Your task to perform on an android device: toggle javascript in the chrome app Image 0: 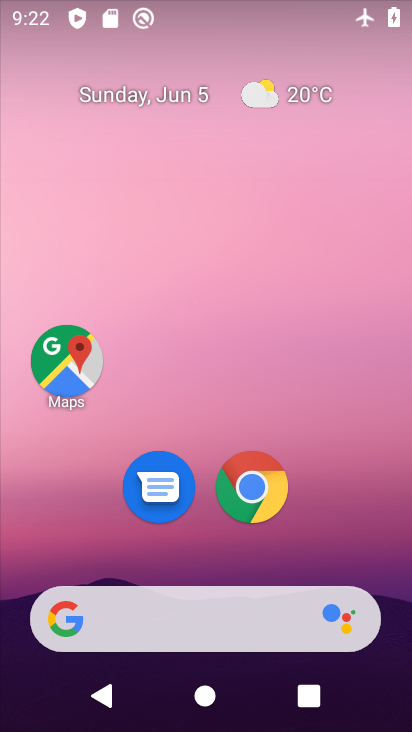
Step 0: drag from (159, 582) to (143, 152)
Your task to perform on an android device: toggle javascript in the chrome app Image 1: 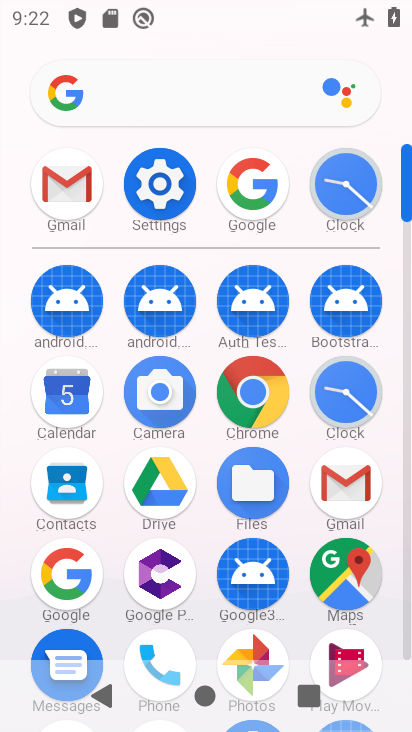
Step 1: click (256, 384)
Your task to perform on an android device: toggle javascript in the chrome app Image 2: 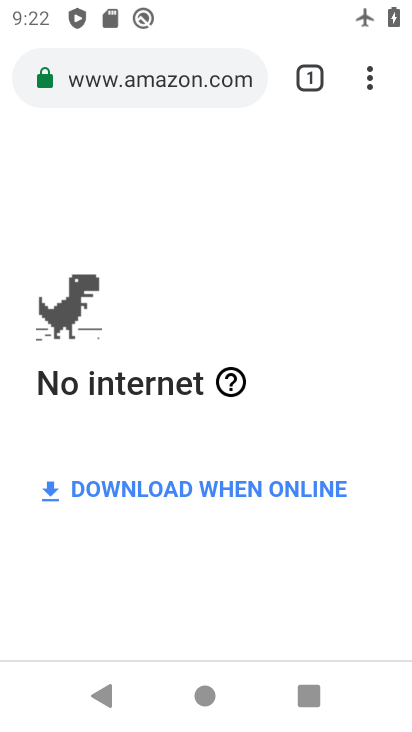
Step 2: click (374, 84)
Your task to perform on an android device: toggle javascript in the chrome app Image 3: 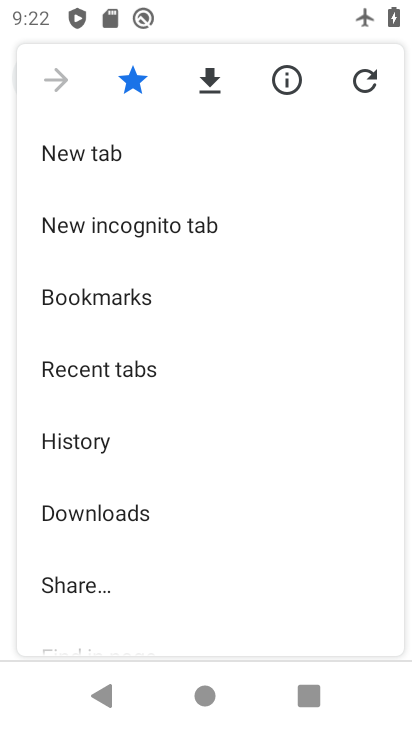
Step 3: drag from (203, 445) to (222, 77)
Your task to perform on an android device: toggle javascript in the chrome app Image 4: 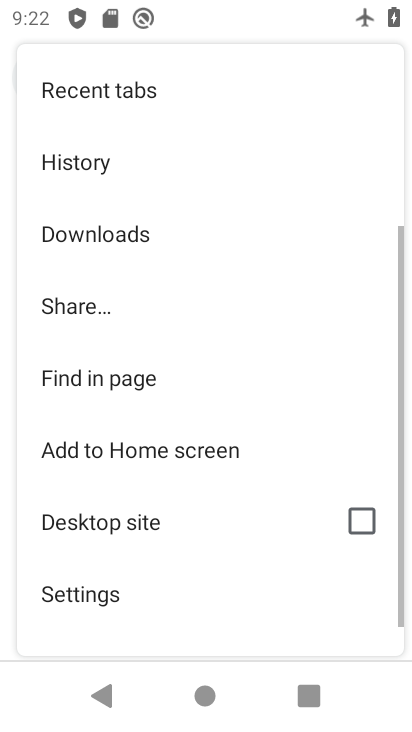
Step 4: click (233, 12)
Your task to perform on an android device: toggle javascript in the chrome app Image 5: 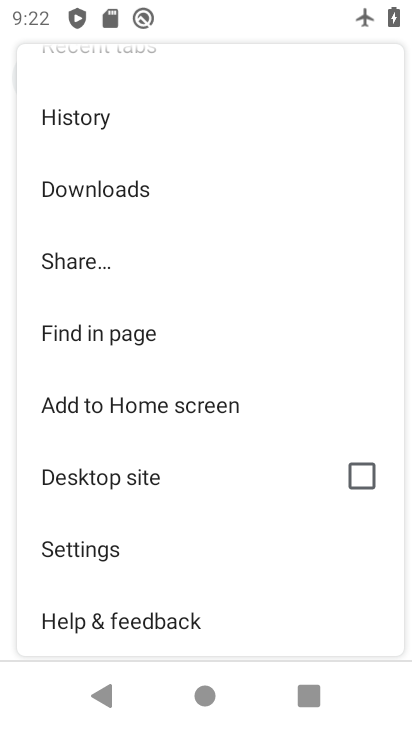
Step 5: drag from (226, 431) to (221, 126)
Your task to perform on an android device: toggle javascript in the chrome app Image 6: 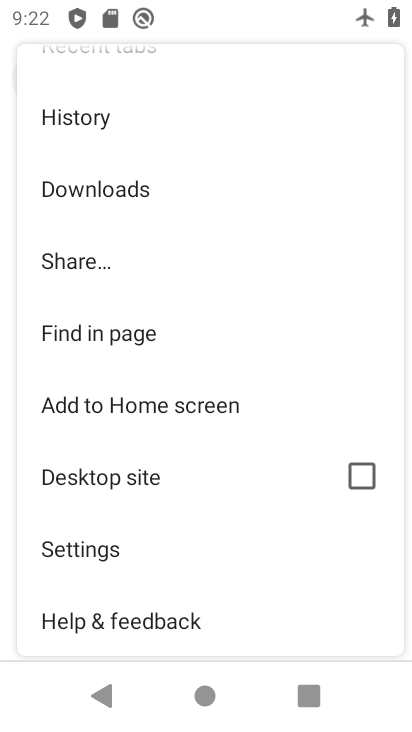
Step 6: click (92, 567)
Your task to perform on an android device: toggle javascript in the chrome app Image 7: 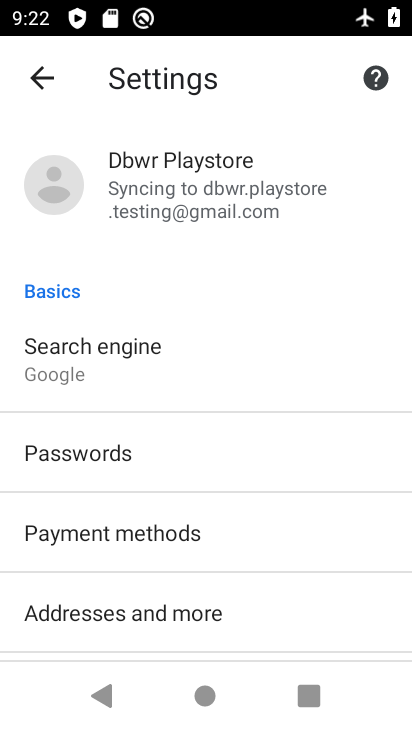
Step 7: drag from (106, 483) to (122, 165)
Your task to perform on an android device: toggle javascript in the chrome app Image 8: 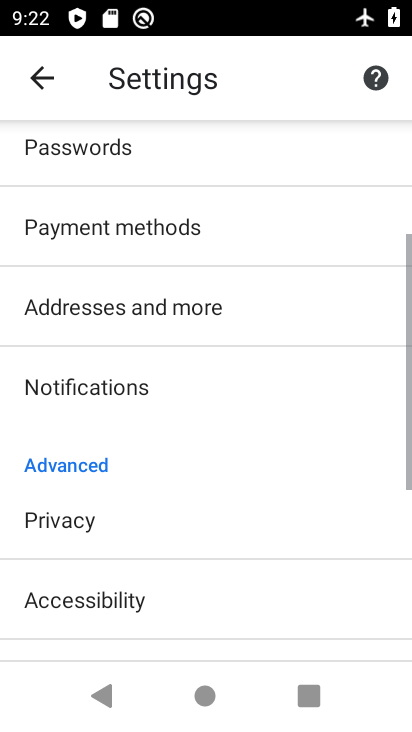
Step 8: click (138, 53)
Your task to perform on an android device: toggle javascript in the chrome app Image 9: 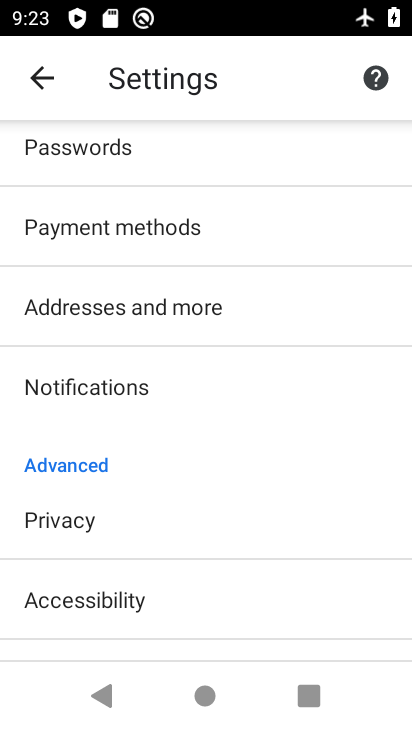
Step 9: drag from (140, 561) to (175, 176)
Your task to perform on an android device: toggle javascript in the chrome app Image 10: 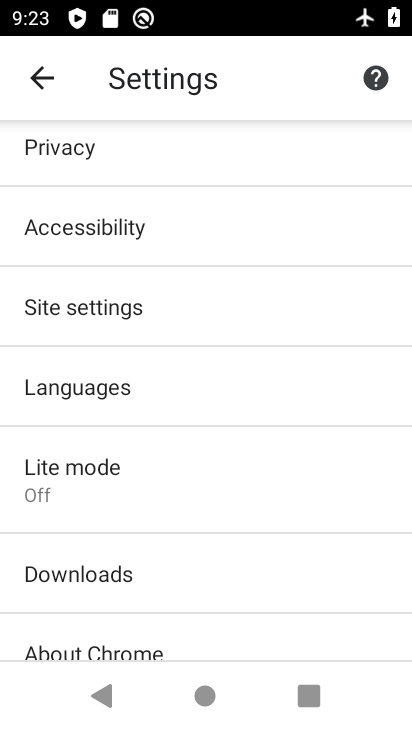
Step 10: click (151, 321)
Your task to perform on an android device: toggle javascript in the chrome app Image 11: 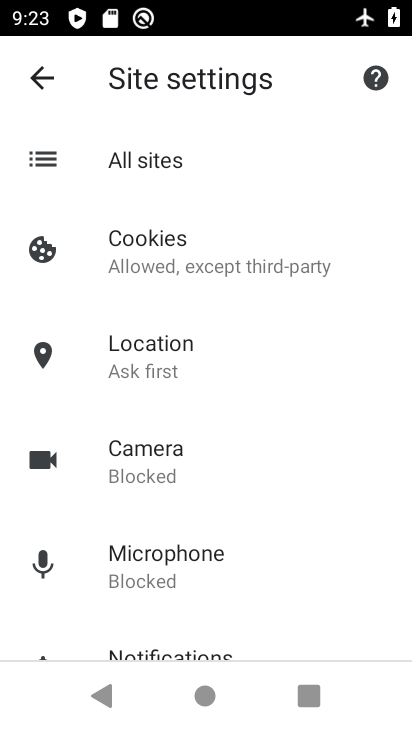
Step 11: drag from (184, 521) to (176, 167)
Your task to perform on an android device: toggle javascript in the chrome app Image 12: 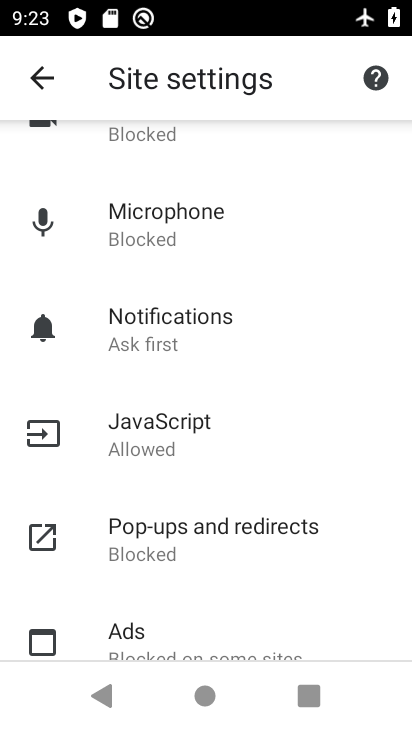
Step 12: click (201, 417)
Your task to perform on an android device: toggle javascript in the chrome app Image 13: 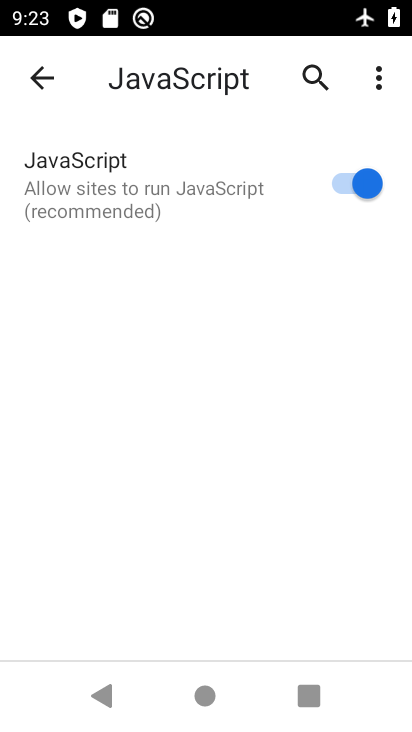
Step 13: click (331, 173)
Your task to perform on an android device: toggle javascript in the chrome app Image 14: 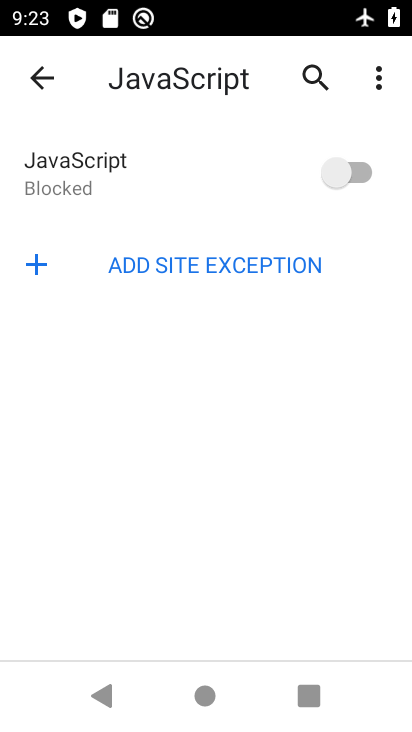
Step 14: task complete